Your task to perform on an android device: Open Google Maps and go to "Timeline" Image 0: 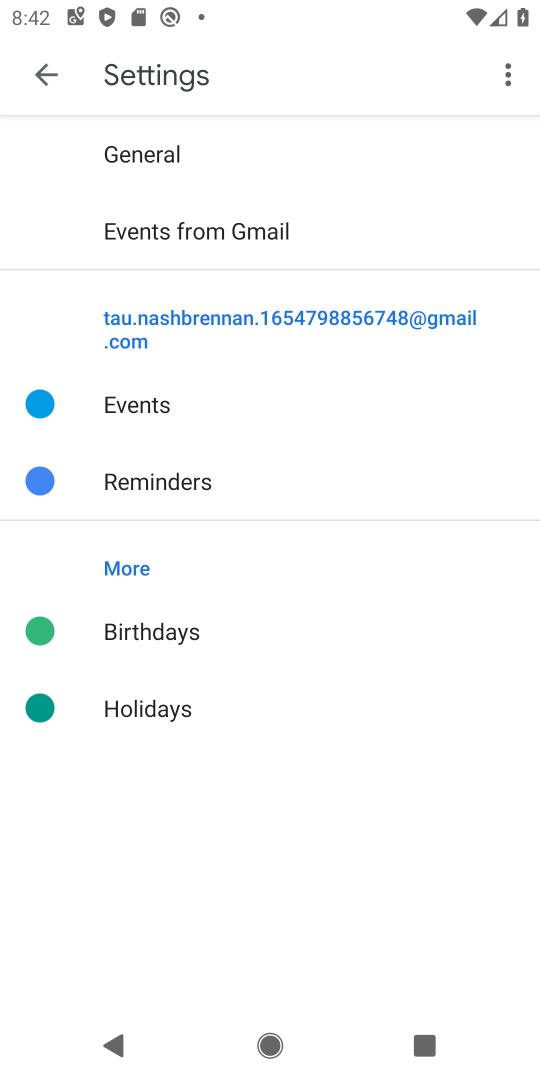
Step 0: press home button
Your task to perform on an android device: Open Google Maps and go to "Timeline" Image 1: 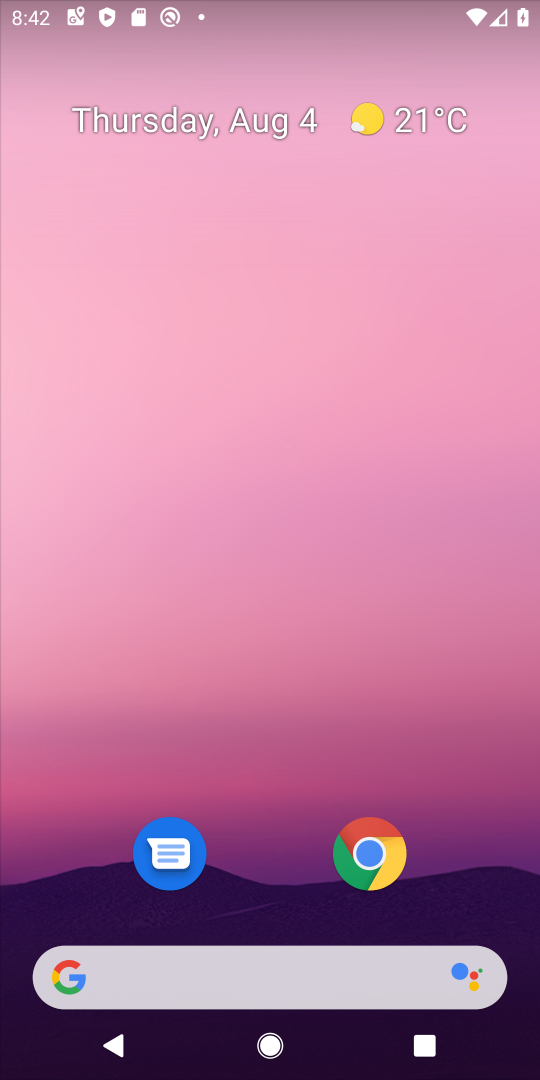
Step 1: drag from (273, 370) to (283, 300)
Your task to perform on an android device: Open Google Maps and go to "Timeline" Image 2: 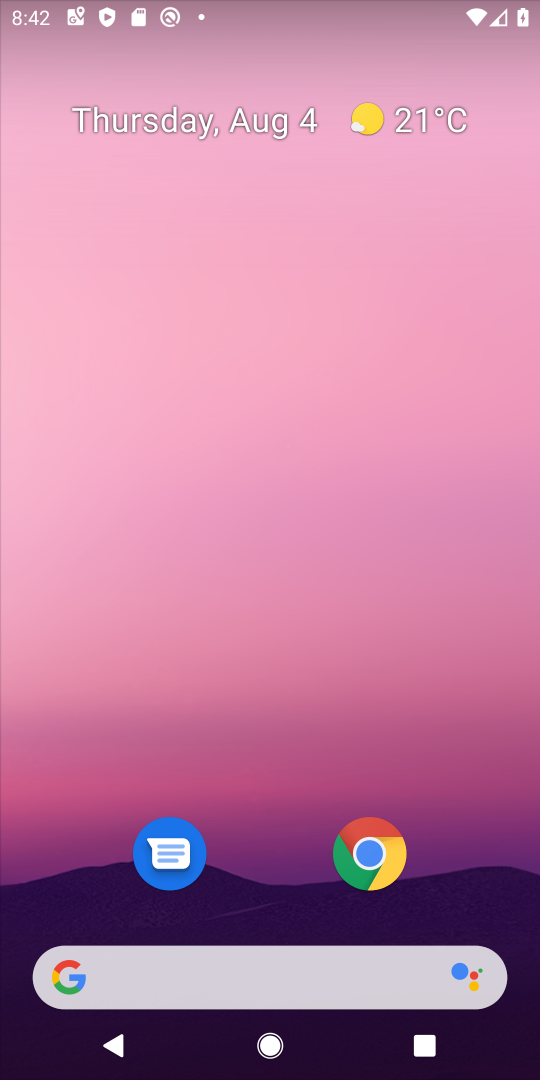
Step 2: drag from (206, 859) to (302, 359)
Your task to perform on an android device: Open Google Maps and go to "Timeline" Image 3: 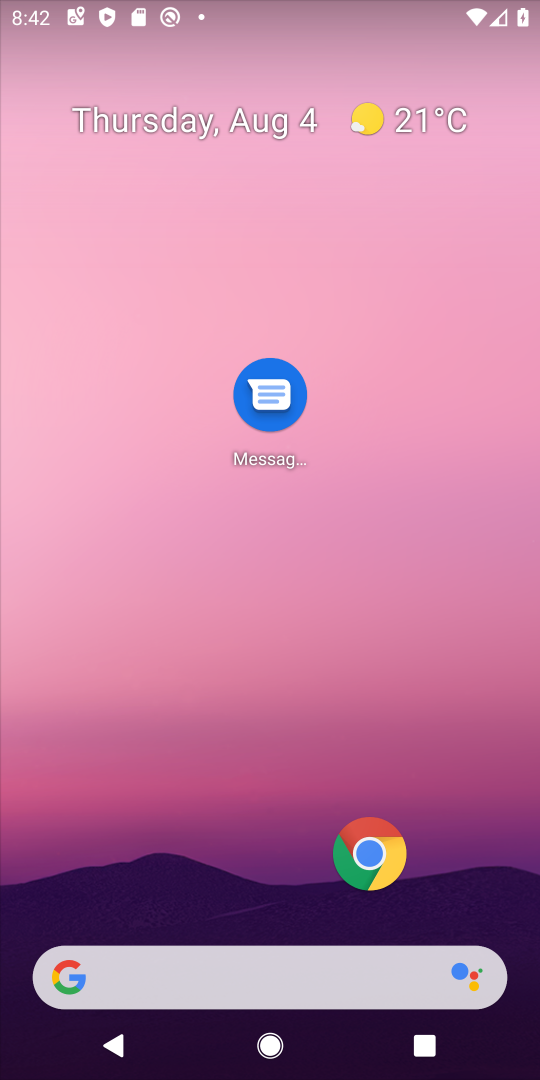
Step 3: drag from (187, 936) to (186, 440)
Your task to perform on an android device: Open Google Maps and go to "Timeline" Image 4: 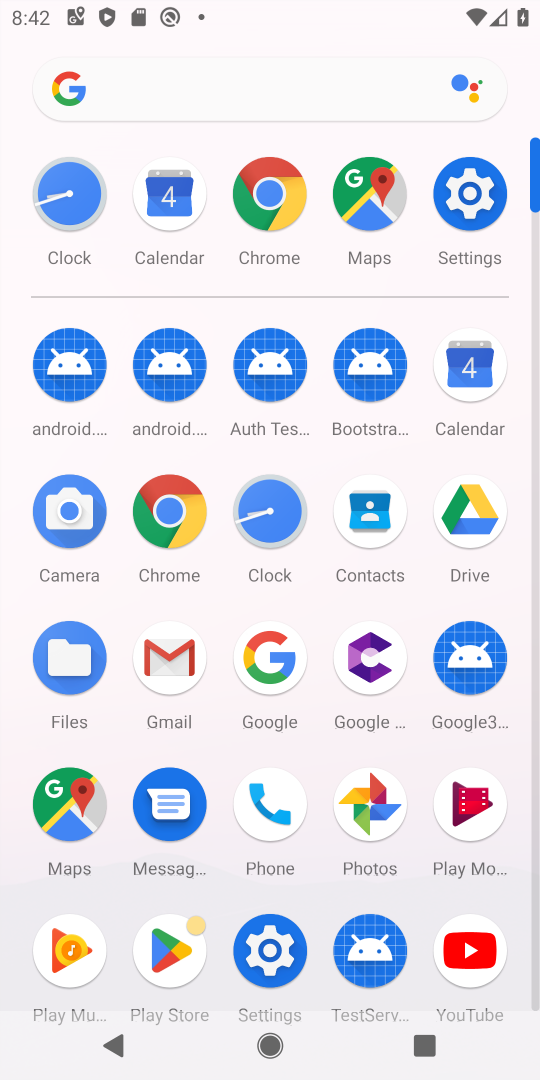
Step 4: click (376, 218)
Your task to perform on an android device: Open Google Maps and go to "Timeline" Image 5: 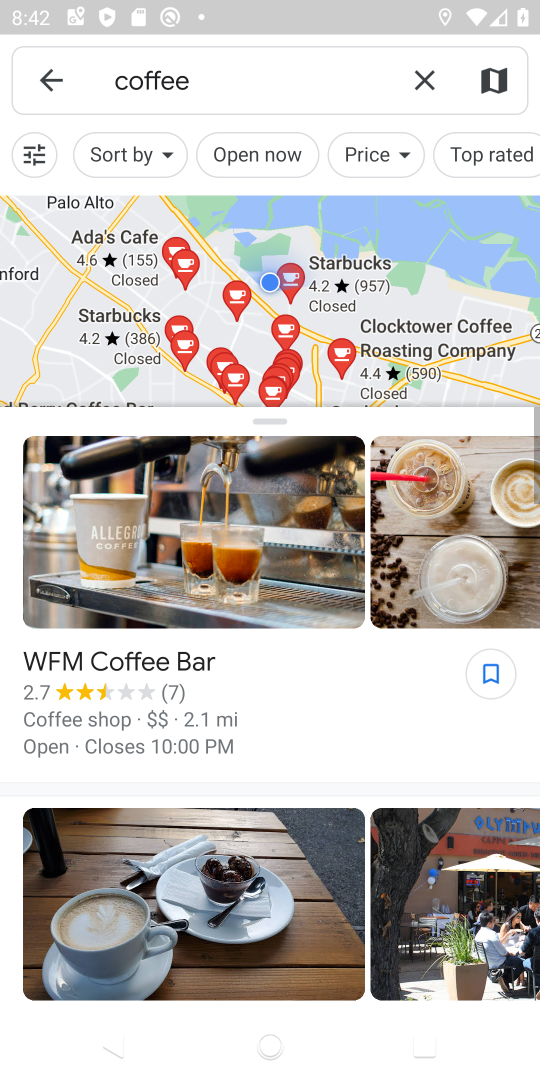
Step 5: click (414, 69)
Your task to perform on an android device: Open Google Maps and go to "Timeline" Image 6: 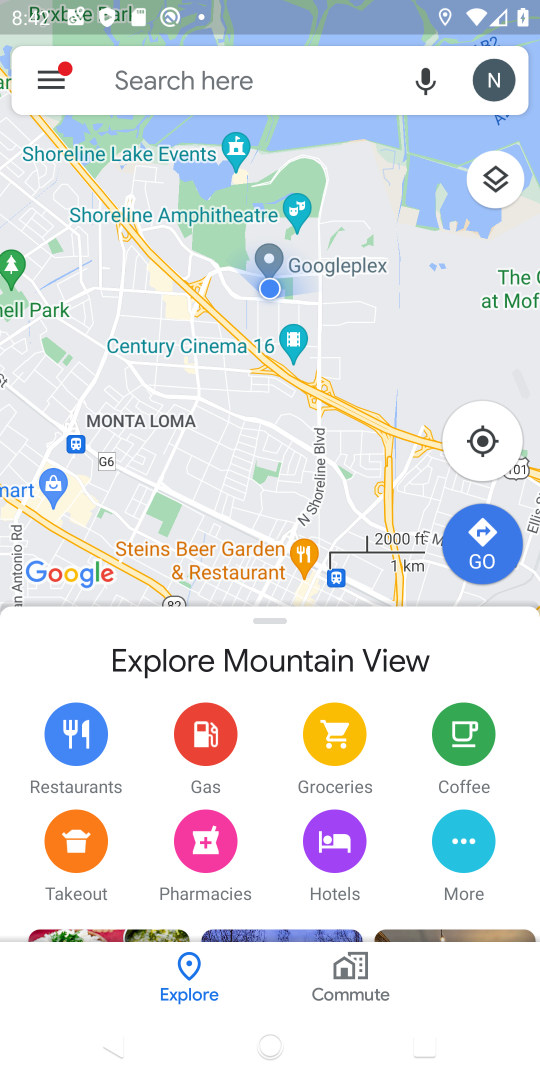
Step 6: click (51, 74)
Your task to perform on an android device: Open Google Maps and go to "Timeline" Image 7: 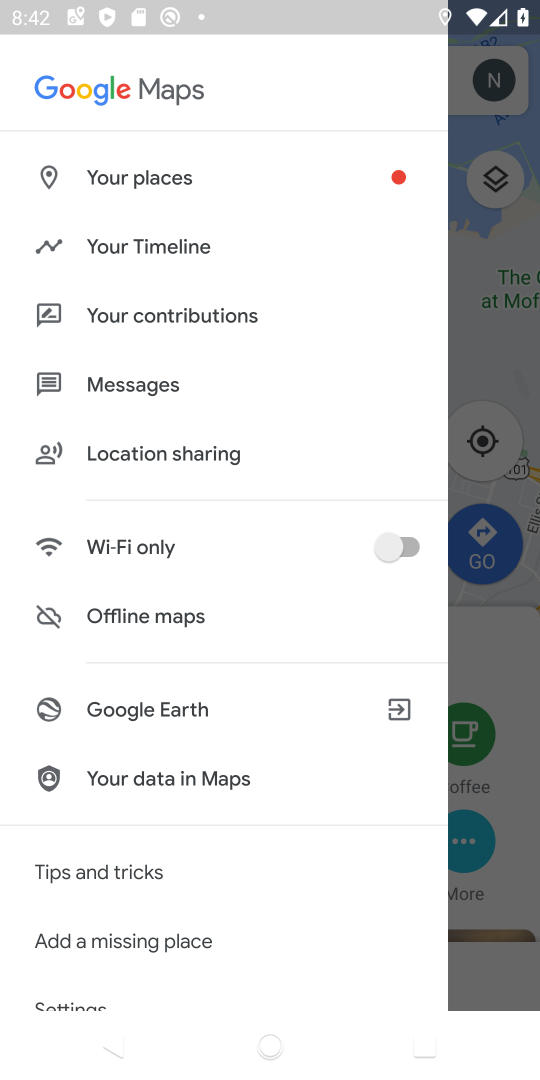
Step 7: click (157, 263)
Your task to perform on an android device: Open Google Maps and go to "Timeline" Image 8: 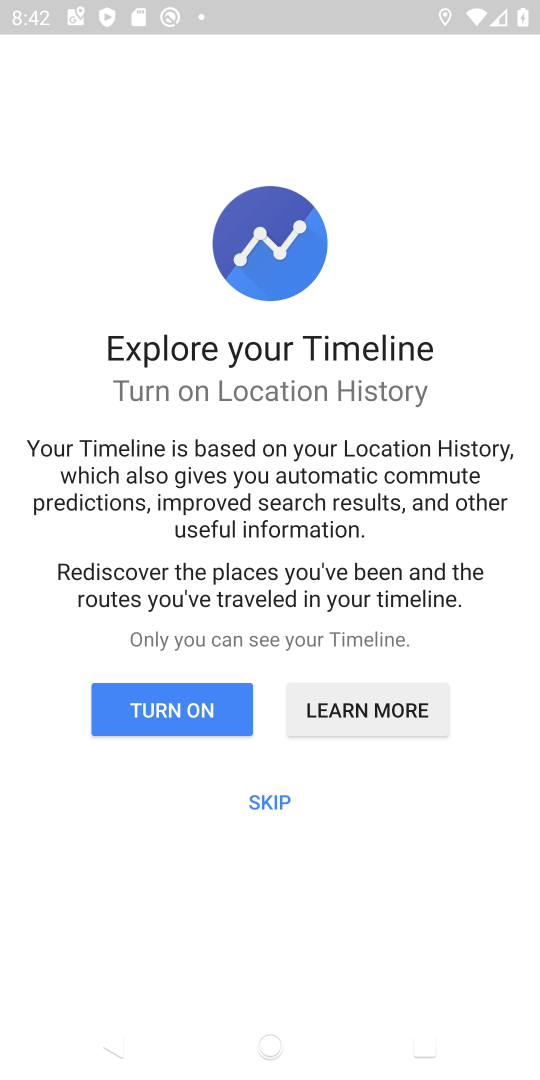
Step 8: click (195, 714)
Your task to perform on an android device: Open Google Maps and go to "Timeline" Image 9: 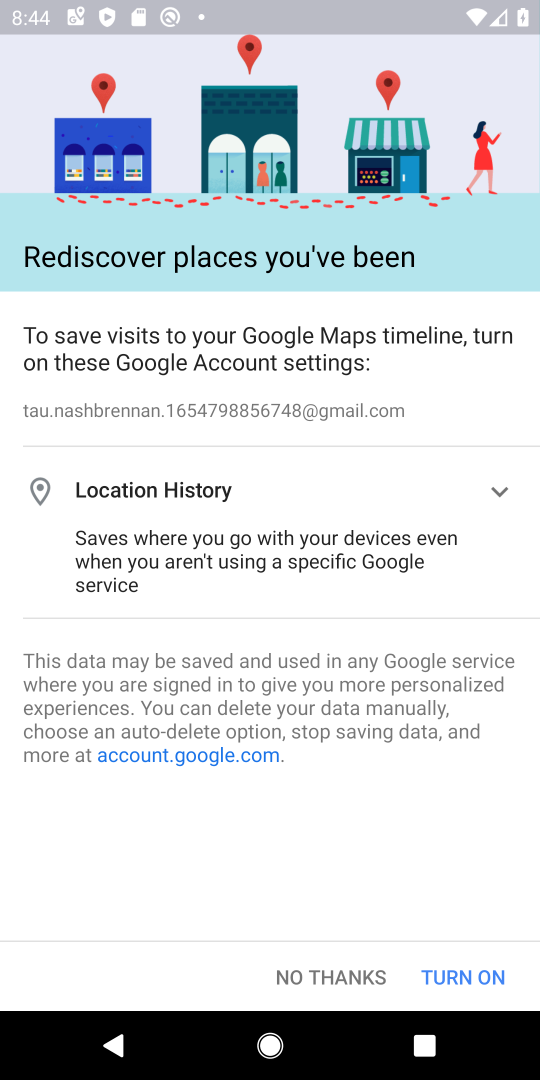
Step 9: task complete